Your task to perform on an android device: change alarm snooze length Image 0: 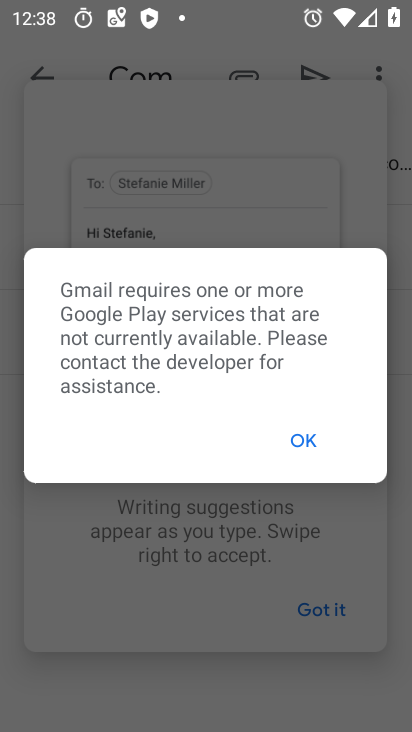
Step 0: press home button
Your task to perform on an android device: change alarm snooze length Image 1: 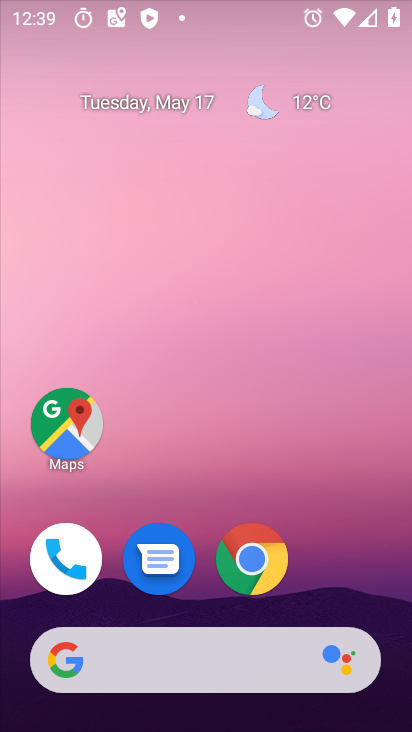
Step 1: drag from (332, 516) to (344, 99)
Your task to perform on an android device: change alarm snooze length Image 2: 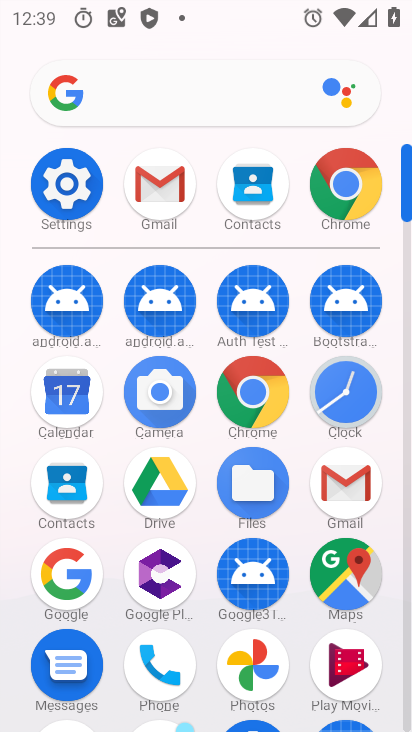
Step 2: click (369, 409)
Your task to perform on an android device: change alarm snooze length Image 3: 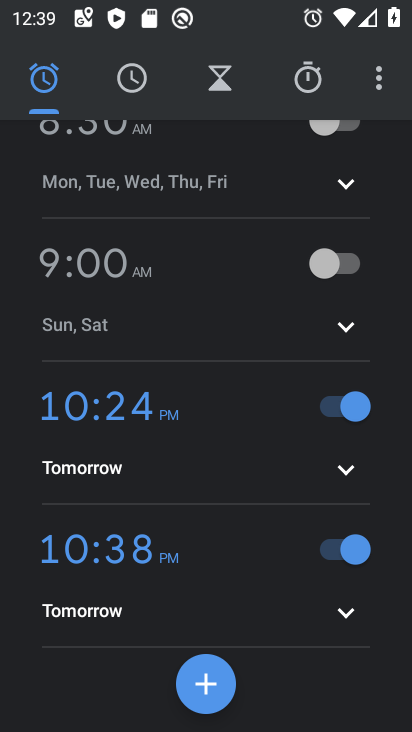
Step 3: click (377, 69)
Your task to perform on an android device: change alarm snooze length Image 4: 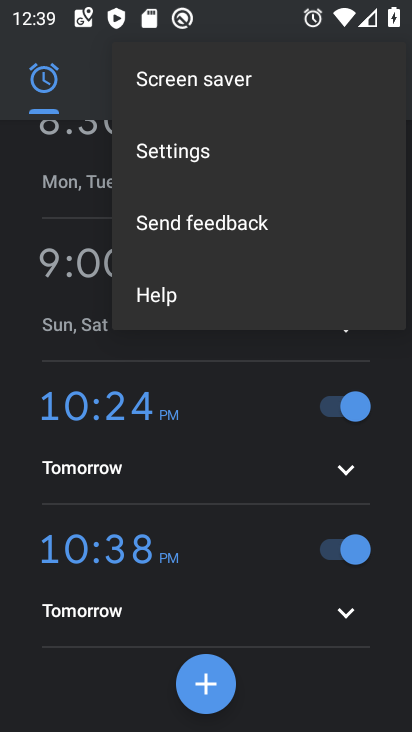
Step 4: click (256, 145)
Your task to perform on an android device: change alarm snooze length Image 5: 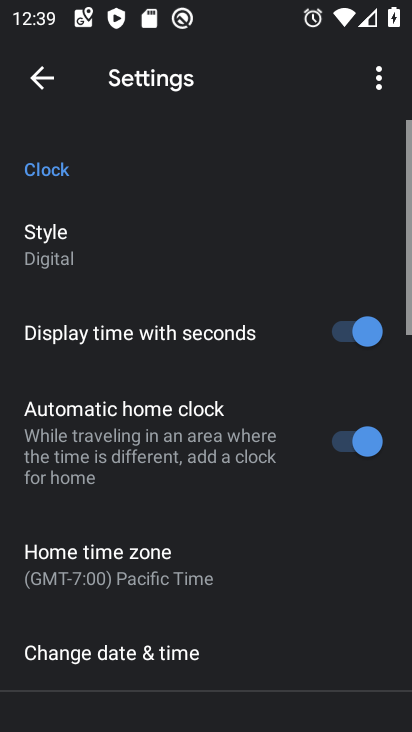
Step 5: drag from (235, 568) to (296, 67)
Your task to perform on an android device: change alarm snooze length Image 6: 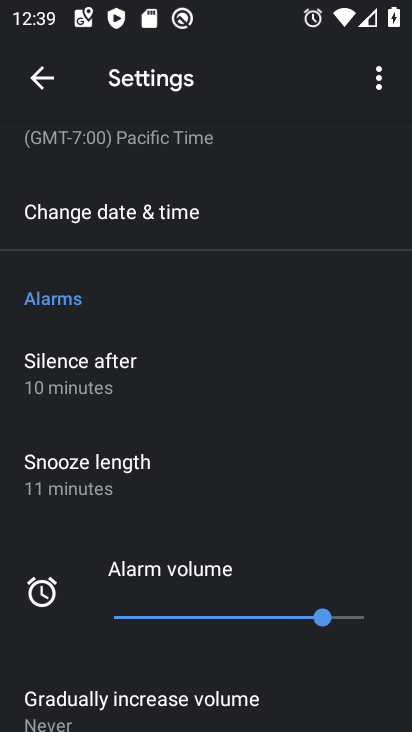
Step 6: click (133, 461)
Your task to perform on an android device: change alarm snooze length Image 7: 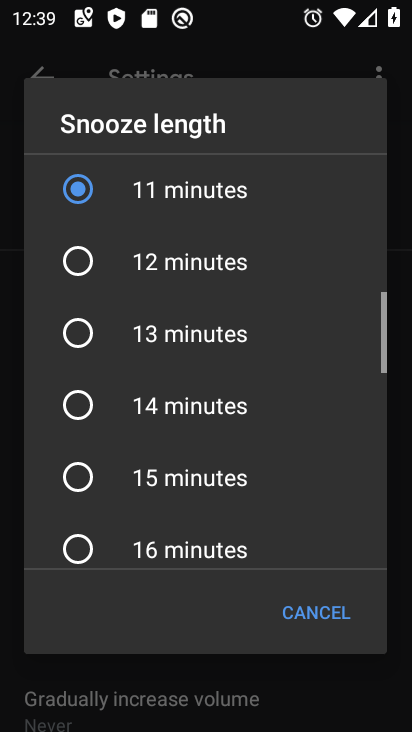
Step 7: click (202, 260)
Your task to perform on an android device: change alarm snooze length Image 8: 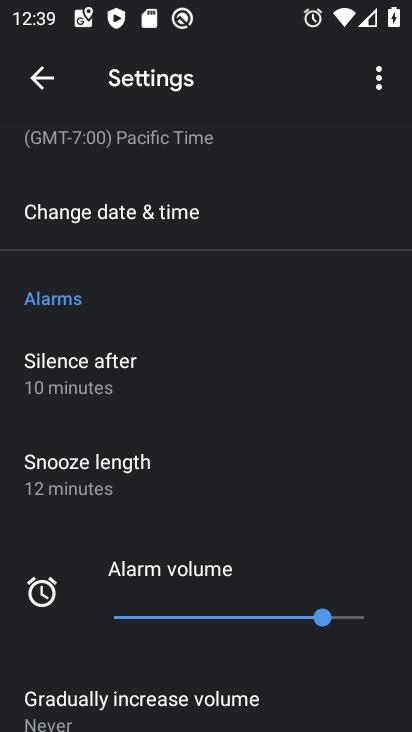
Step 8: task complete